Your task to perform on an android device: turn pop-ups off in chrome Image 0: 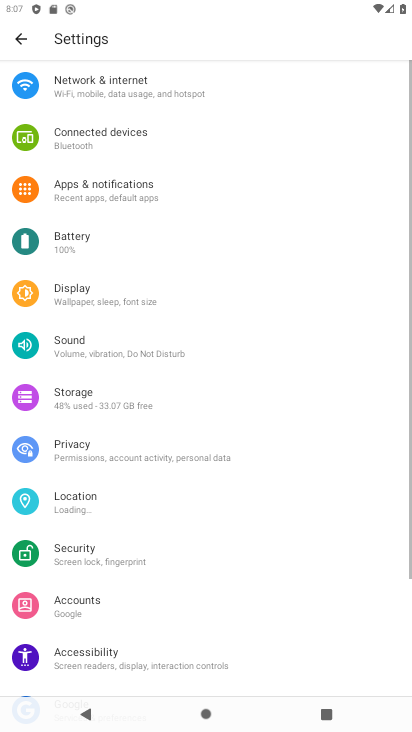
Step 0: press home button
Your task to perform on an android device: turn pop-ups off in chrome Image 1: 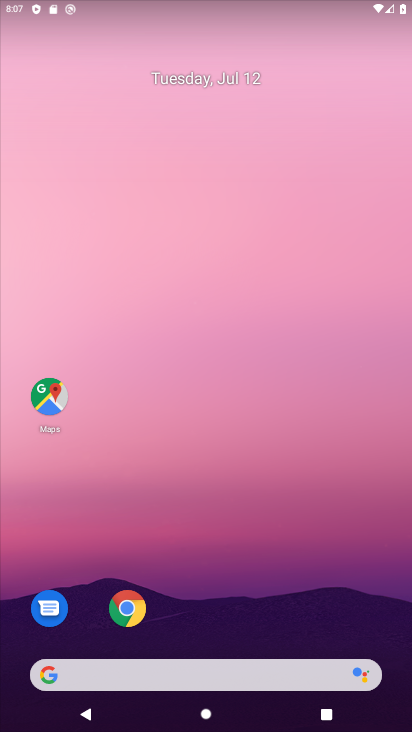
Step 1: click (130, 614)
Your task to perform on an android device: turn pop-ups off in chrome Image 2: 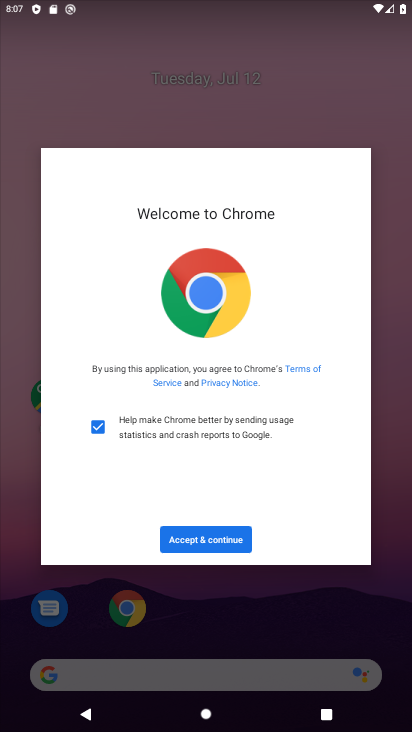
Step 2: click (217, 532)
Your task to perform on an android device: turn pop-ups off in chrome Image 3: 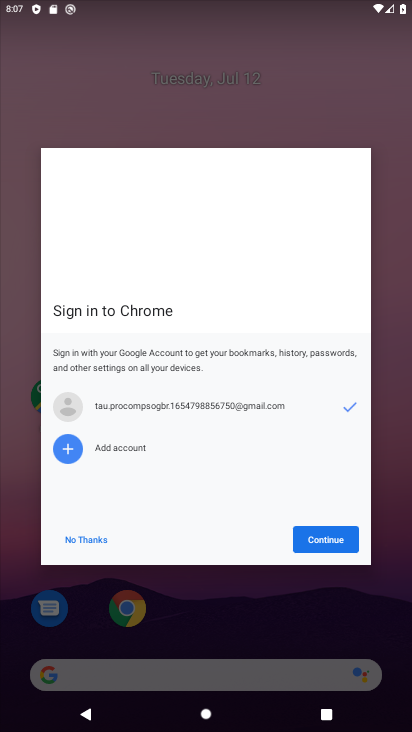
Step 3: click (331, 538)
Your task to perform on an android device: turn pop-ups off in chrome Image 4: 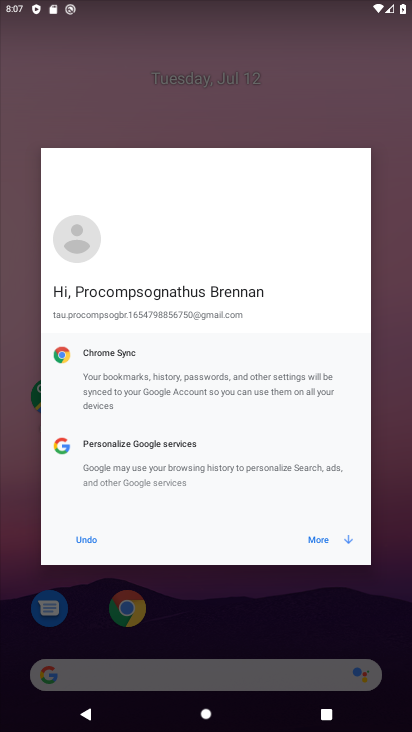
Step 4: click (331, 538)
Your task to perform on an android device: turn pop-ups off in chrome Image 5: 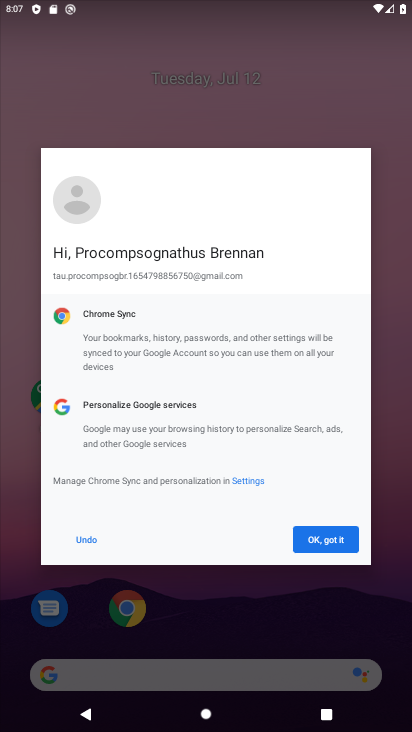
Step 5: click (331, 538)
Your task to perform on an android device: turn pop-ups off in chrome Image 6: 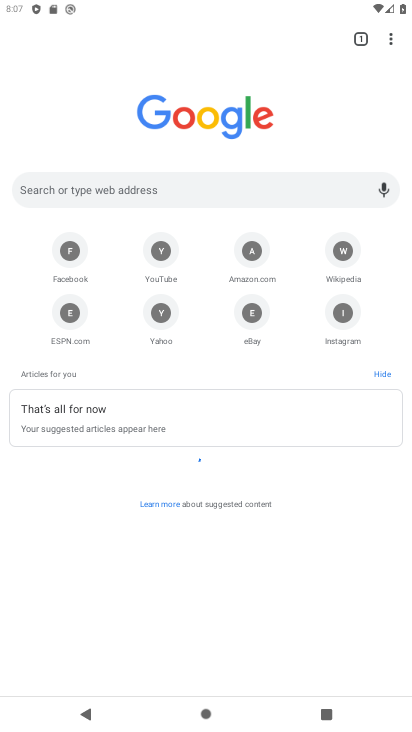
Step 6: click (385, 36)
Your task to perform on an android device: turn pop-ups off in chrome Image 7: 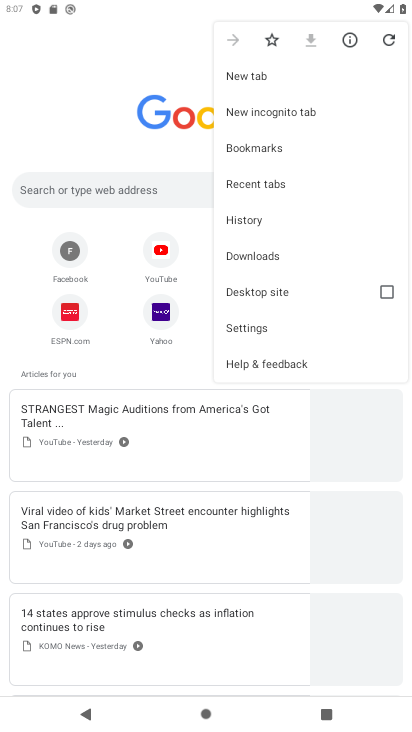
Step 7: click (244, 327)
Your task to perform on an android device: turn pop-ups off in chrome Image 8: 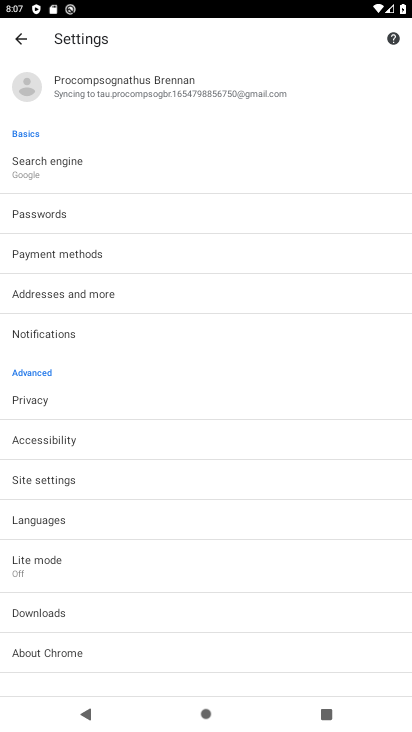
Step 8: click (121, 488)
Your task to perform on an android device: turn pop-ups off in chrome Image 9: 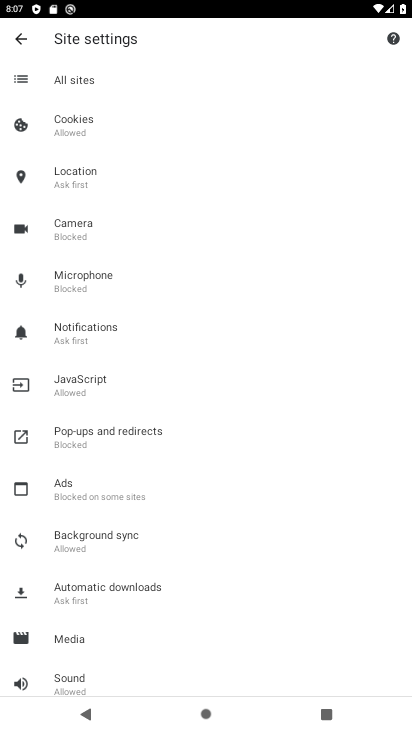
Step 9: click (169, 428)
Your task to perform on an android device: turn pop-ups off in chrome Image 10: 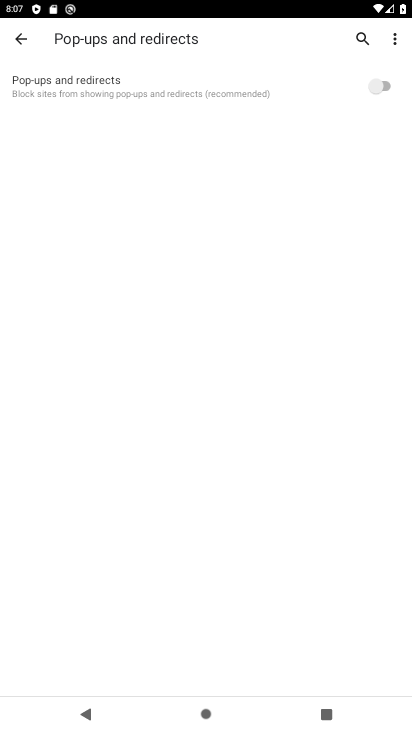
Step 10: task complete